Your task to perform on an android device: Clear all items from cart on newegg.com. Add alienware aurora to the cart on newegg.com, then select checkout. Image 0: 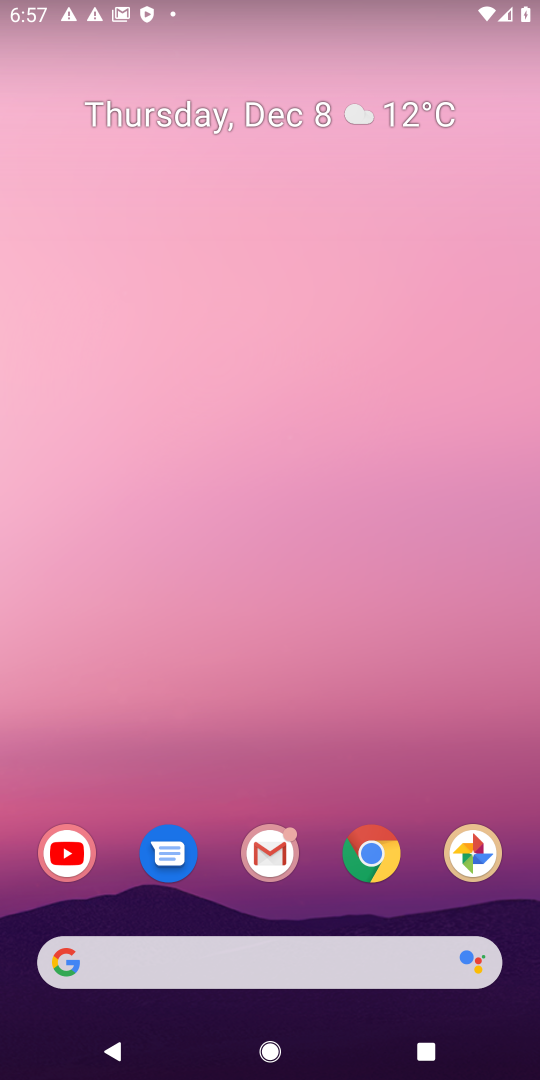
Step 0: click (148, 962)
Your task to perform on an android device: Clear all items from cart on newegg.com. Add alienware aurora to the cart on newegg.com, then select checkout. Image 1: 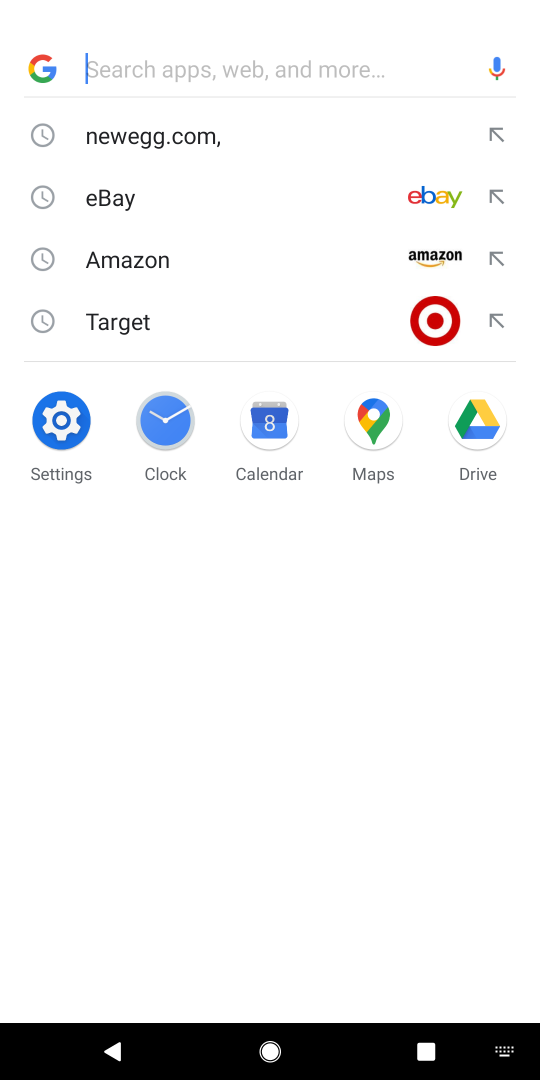
Step 1: click (163, 141)
Your task to perform on an android device: Clear all items from cart on newegg.com. Add alienware aurora to the cart on newegg.com, then select checkout. Image 2: 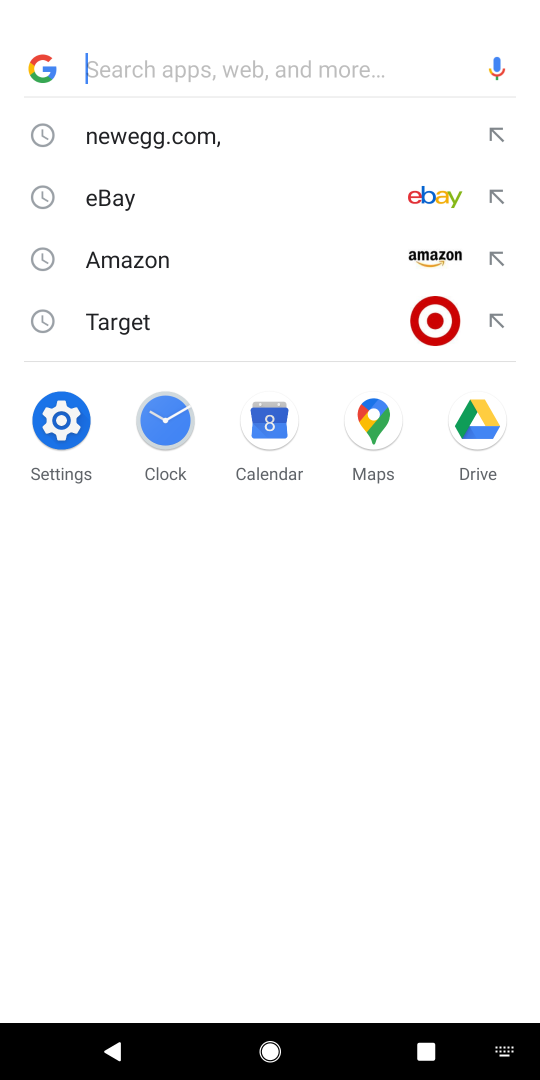
Step 2: click (162, 139)
Your task to perform on an android device: Clear all items from cart on newegg.com. Add alienware aurora to the cart on newegg.com, then select checkout. Image 3: 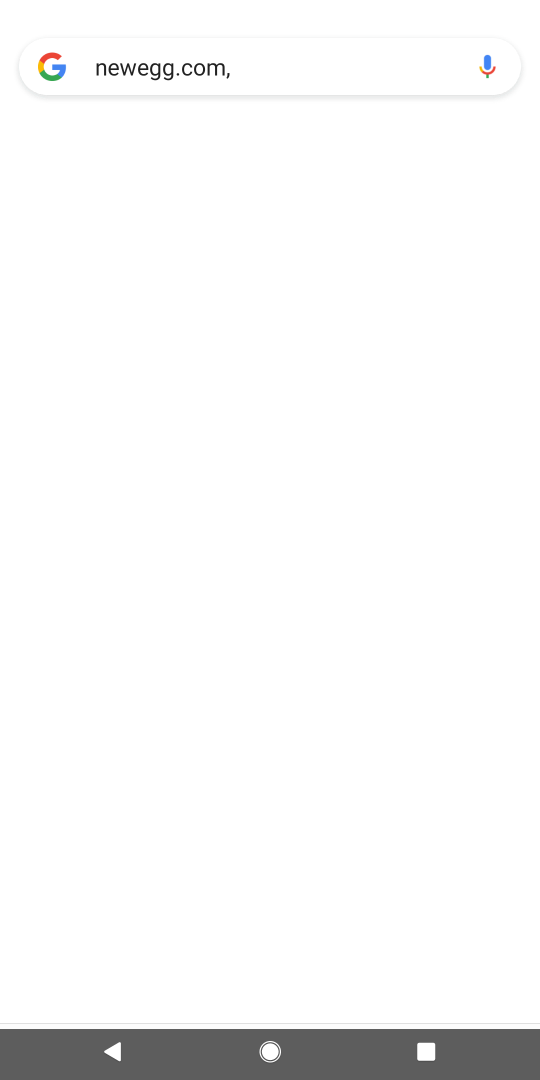
Step 3: click (162, 139)
Your task to perform on an android device: Clear all items from cart on newegg.com. Add alienware aurora to the cart on newegg.com, then select checkout. Image 4: 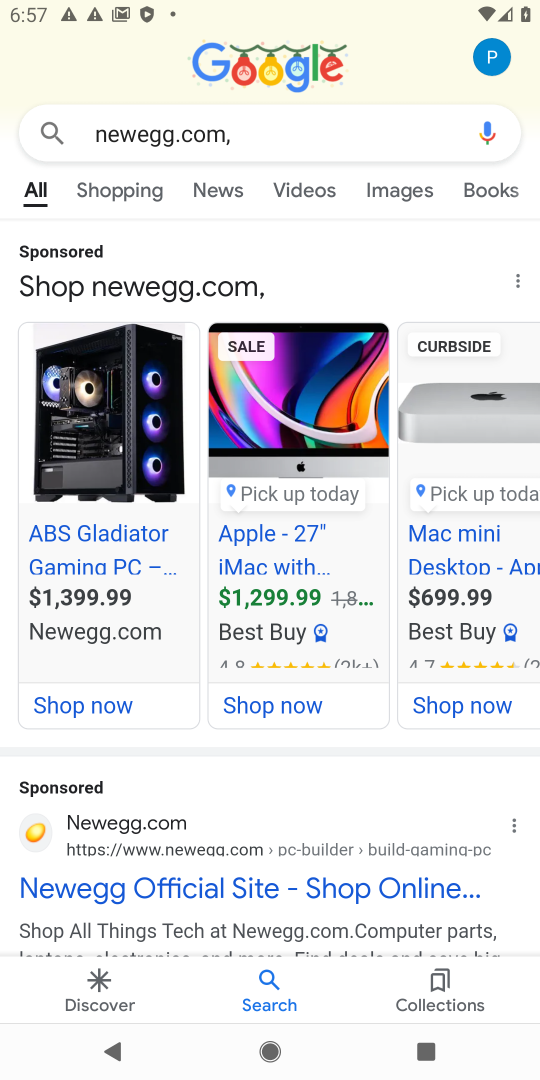
Step 4: drag from (244, 775) to (243, 301)
Your task to perform on an android device: Clear all items from cart on newegg.com. Add alienware aurora to the cart on newegg.com, then select checkout. Image 5: 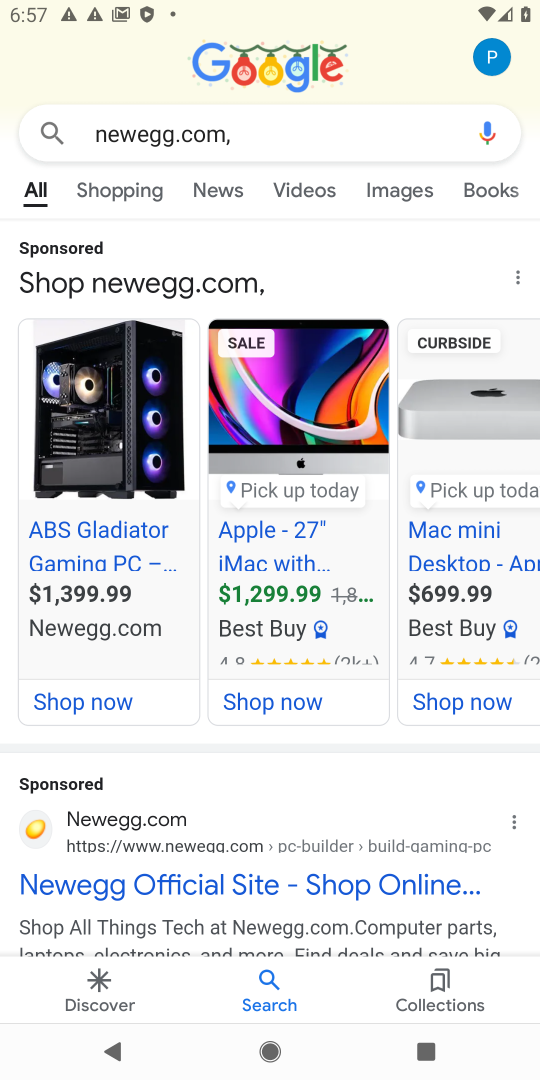
Step 5: click (93, 813)
Your task to perform on an android device: Clear all items from cart on newegg.com. Add alienware aurora to the cart on newegg.com, then select checkout. Image 6: 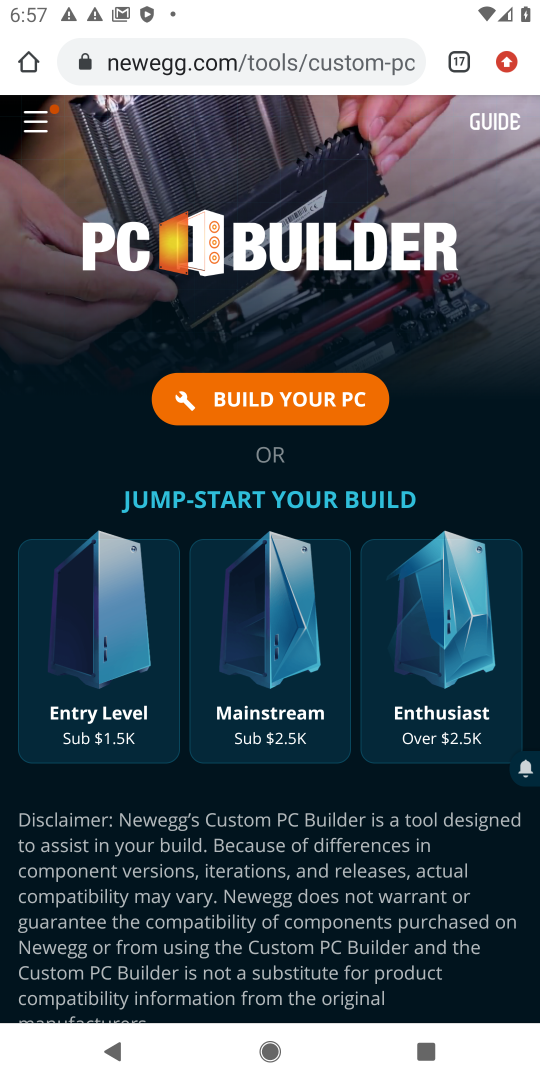
Step 6: press back button
Your task to perform on an android device: Clear all items from cart on newegg.com. Add alienware aurora to the cart on newegg.com, then select checkout. Image 7: 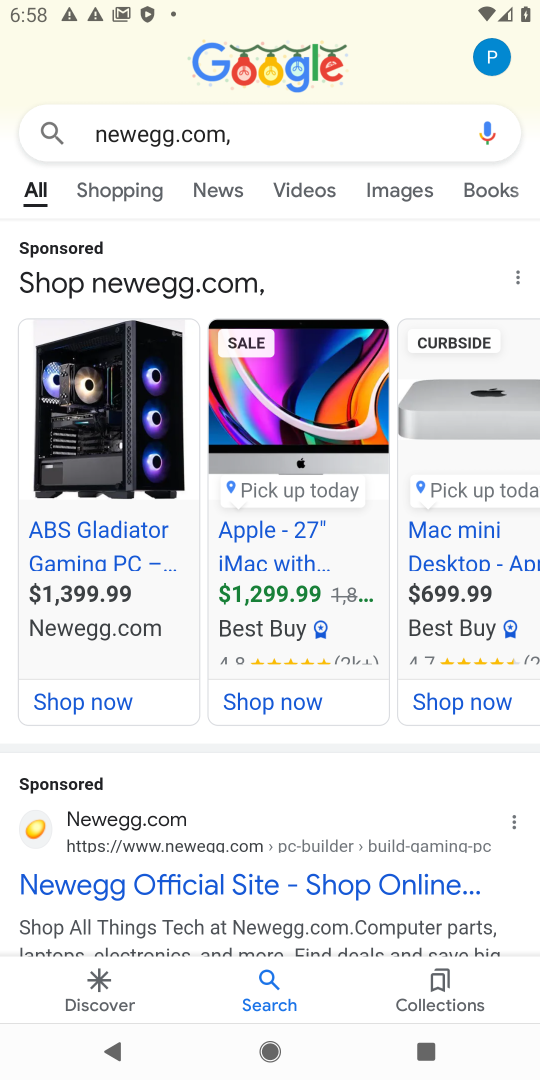
Step 7: drag from (307, 771) to (282, 413)
Your task to perform on an android device: Clear all items from cart on newegg.com. Add alienware aurora to the cart on newegg.com, then select checkout. Image 8: 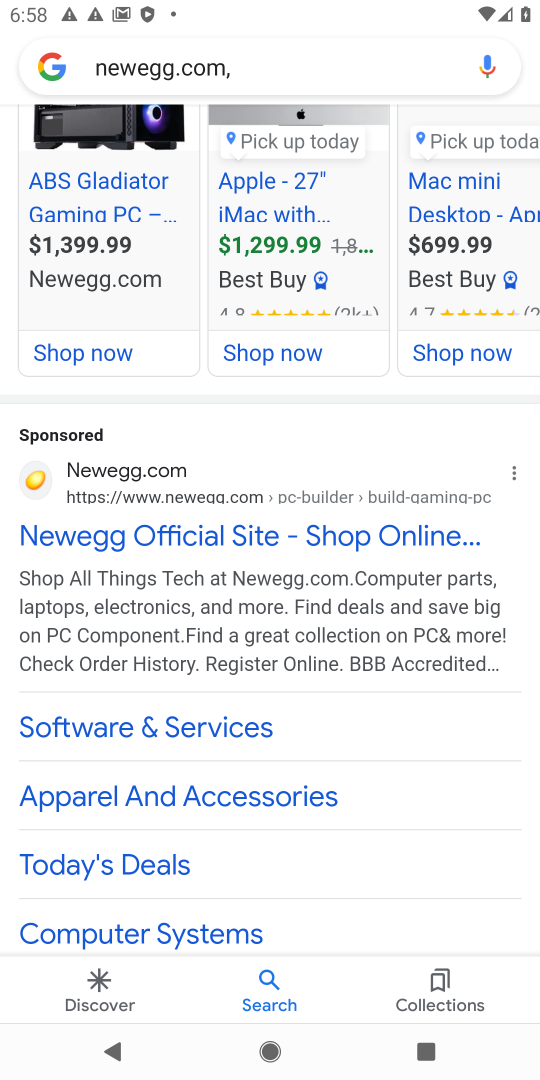
Step 8: drag from (290, 858) to (258, 538)
Your task to perform on an android device: Clear all items from cart on newegg.com. Add alienware aurora to the cart on newegg.com, then select checkout. Image 9: 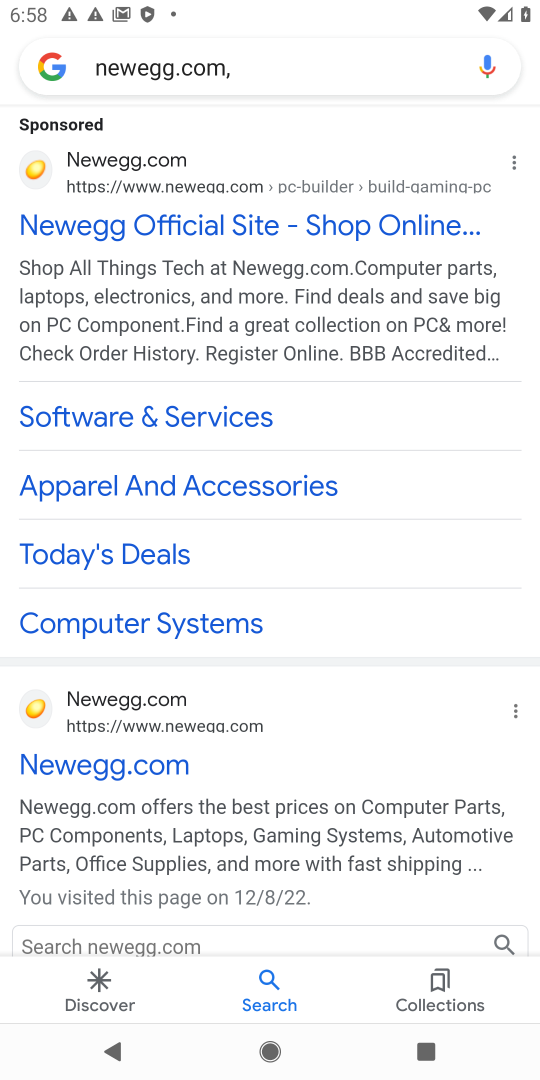
Step 9: click (97, 694)
Your task to perform on an android device: Clear all items from cart on newegg.com. Add alienware aurora to the cart on newegg.com, then select checkout. Image 10: 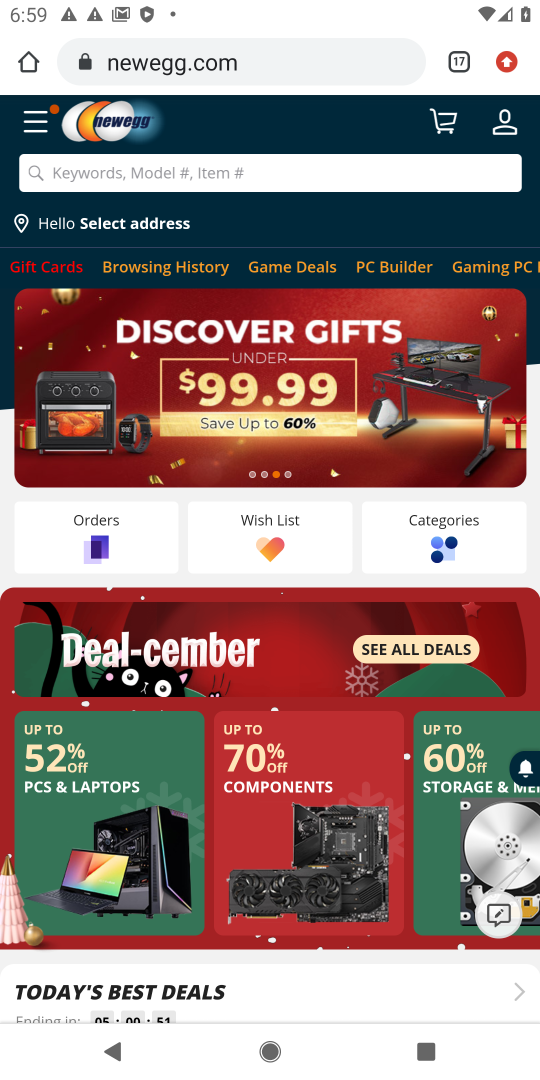
Step 10: task complete